Your task to perform on an android device: choose inbox layout in the gmail app Image 0: 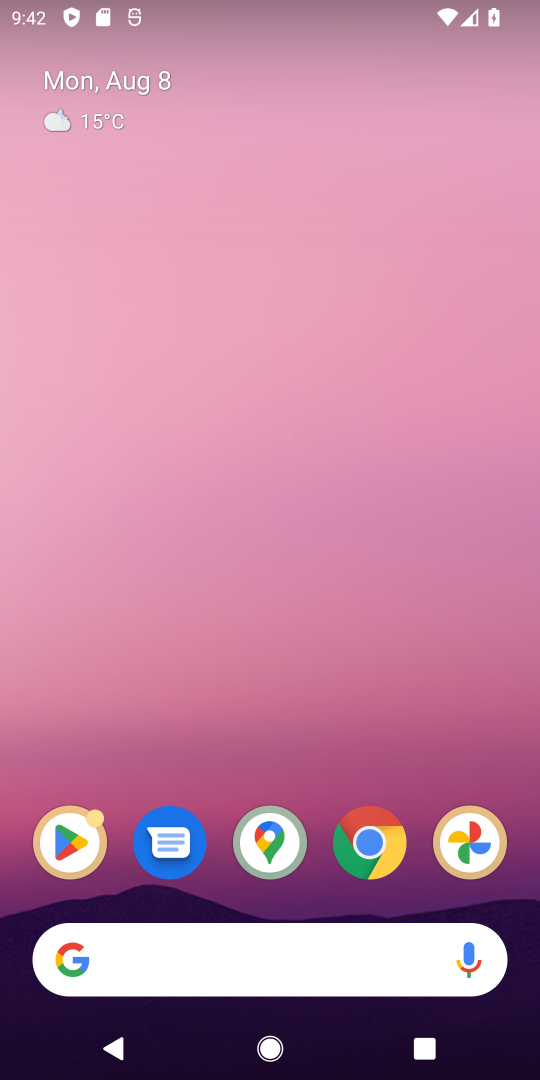
Step 0: drag from (321, 800) to (292, 235)
Your task to perform on an android device: choose inbox layout in the gmail app Image 1: 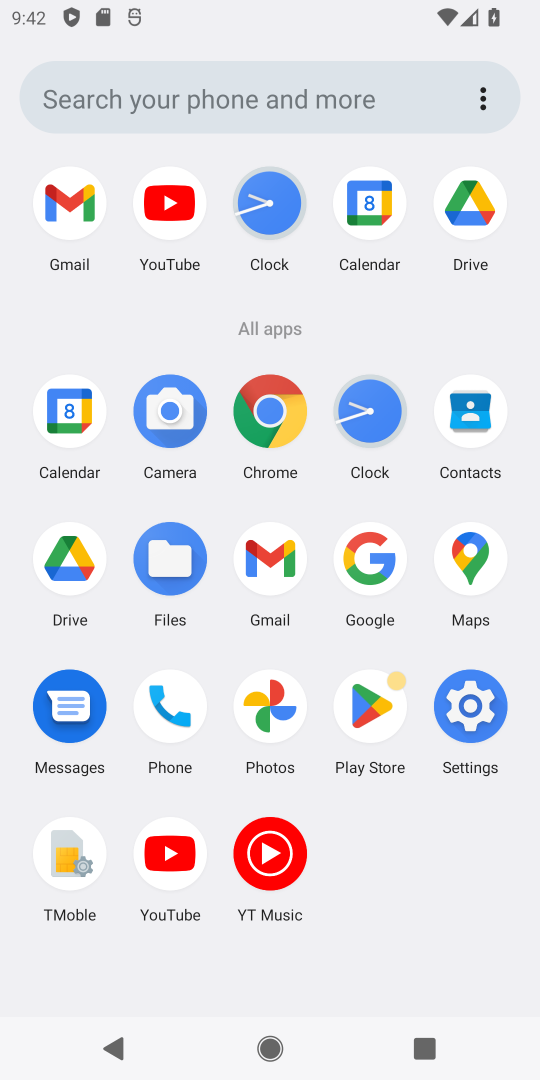
Step 1: click (271, 555)
Your task to perform on an android device: choose inbox layout in the gmail app Image 2: 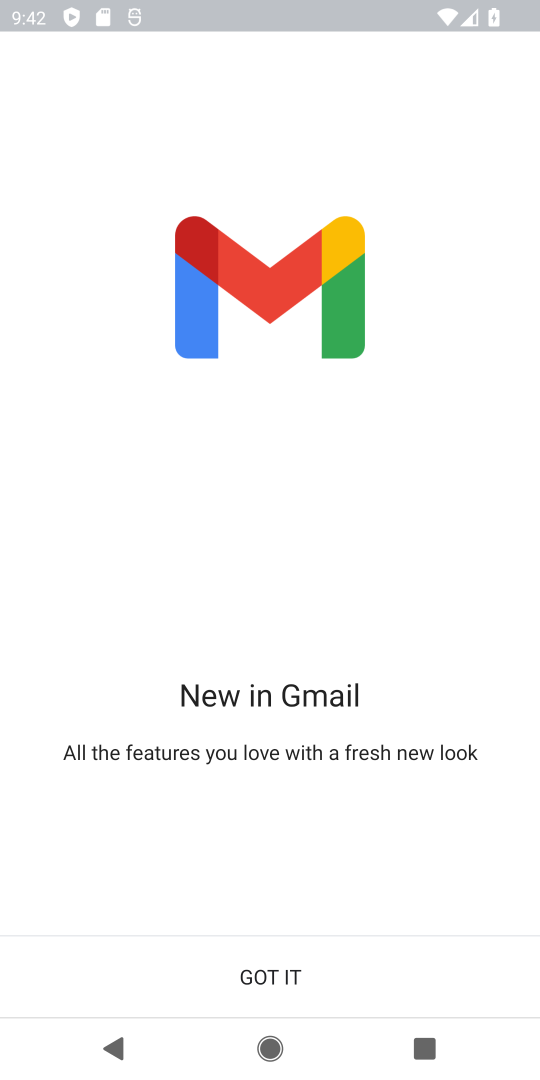
Step 2: click (242, 960)
Your task to perform on an android device: choose inbox layout in the gmail app Image 3: 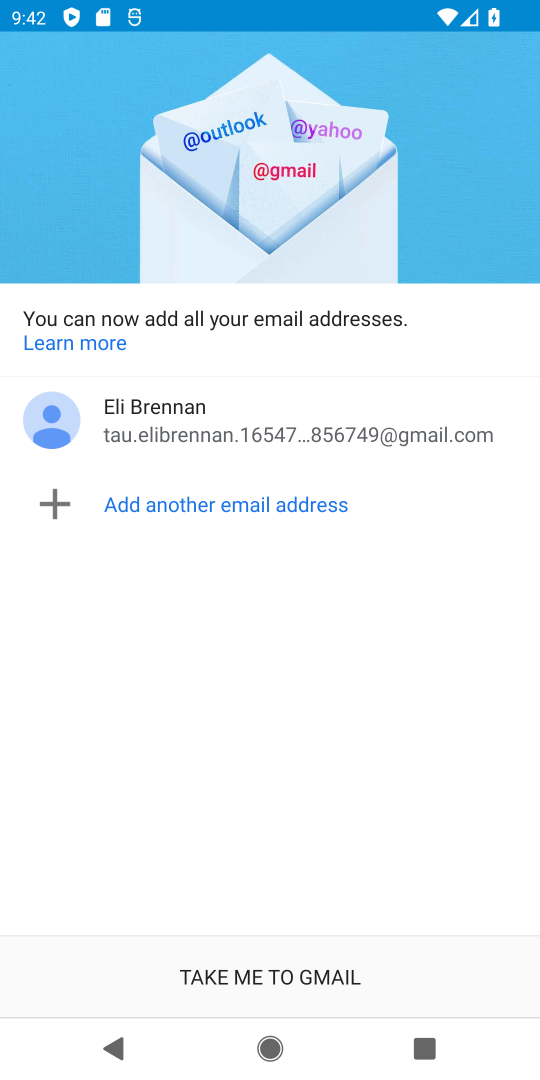
Step 3: click (393, 964)
Your task to perform on an android device: choose inbox layout in the gmail app Image 4: 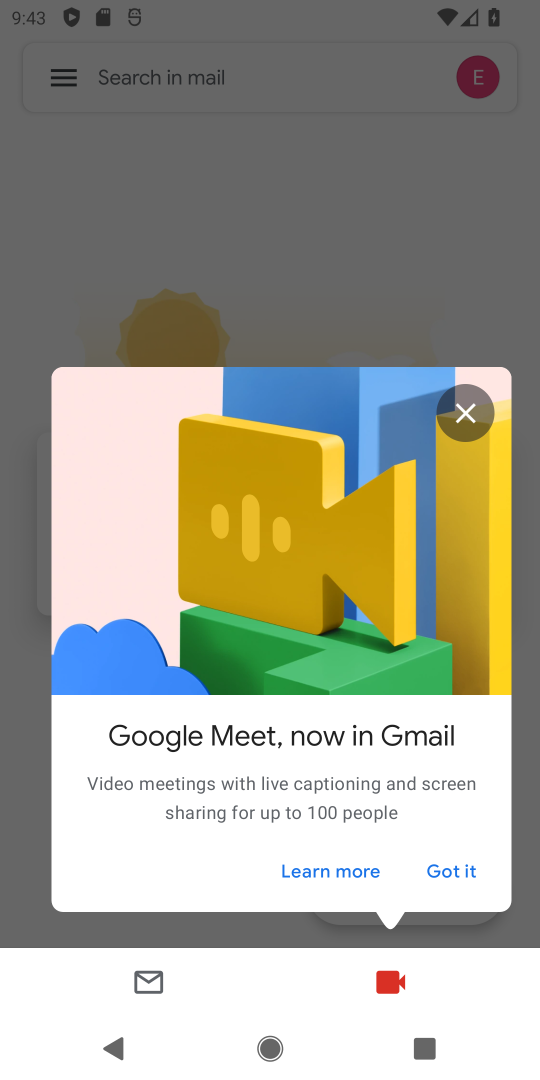
Step 4: click (479, 412)
Your task to perform on an android device: choose inbox layout in the gmail app Image 5: 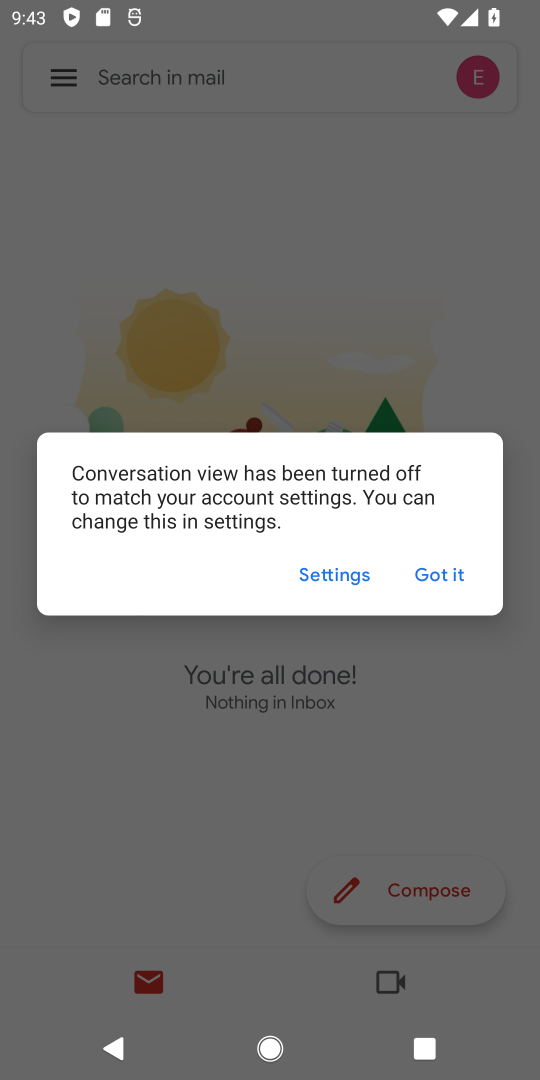
Step 5: click (427, 565)
Your task to perform on an android device: choose inbox layout in the gmail app Image 6: 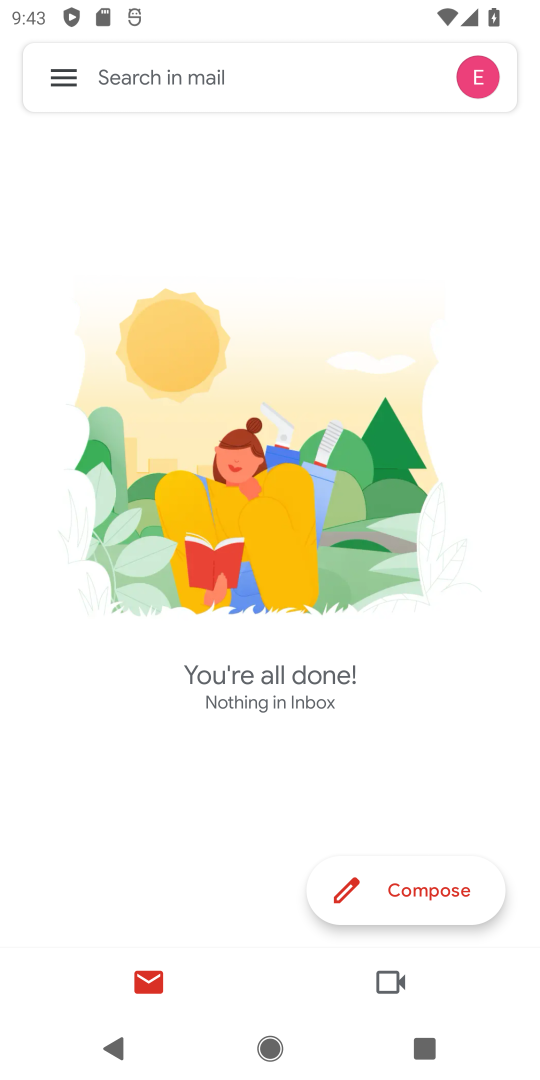
Step 6: click (71, 78)
Your task to perform on an android device: choose inbox layout in the gmail app Image 7: 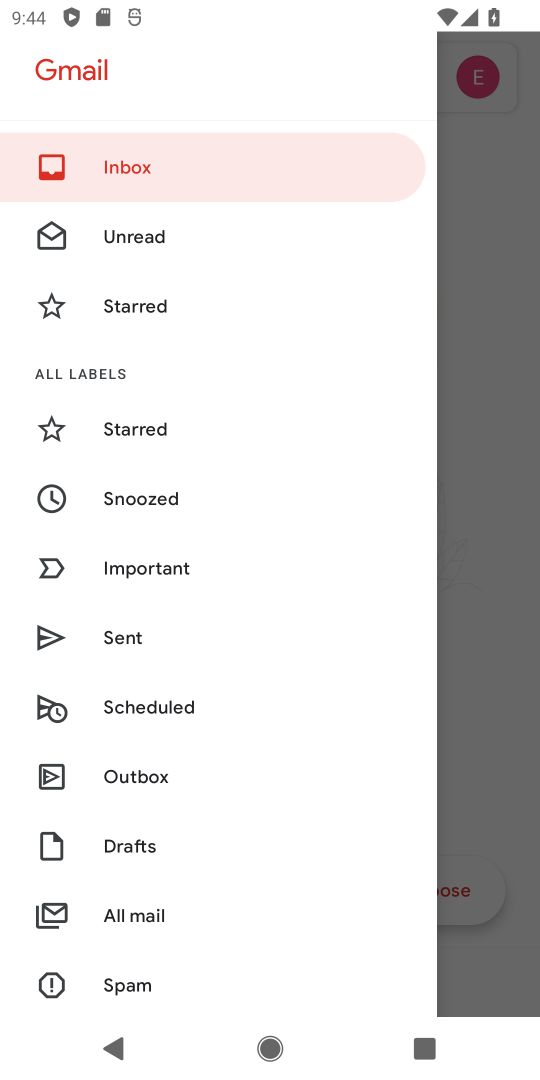
Step 7: drag from (384, 765) to (290, 366)
Your task to perform on an android device: choose inbox layout in the gmail app Image 8: 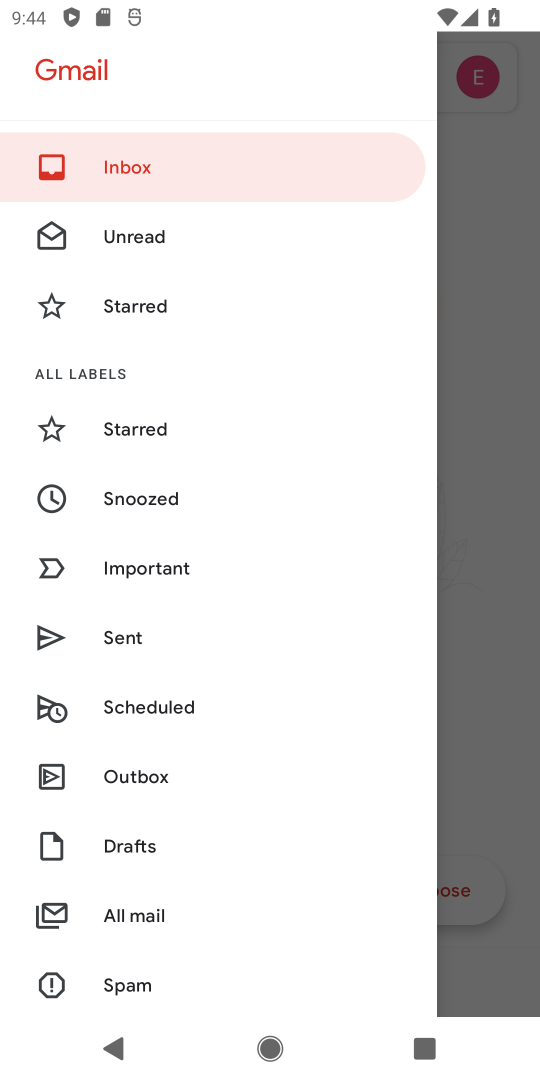
Step 8: drag from (231, 921) to (180, 416)
Your task to perform on an android device: choose inbox layout in the gmail app Image 9: 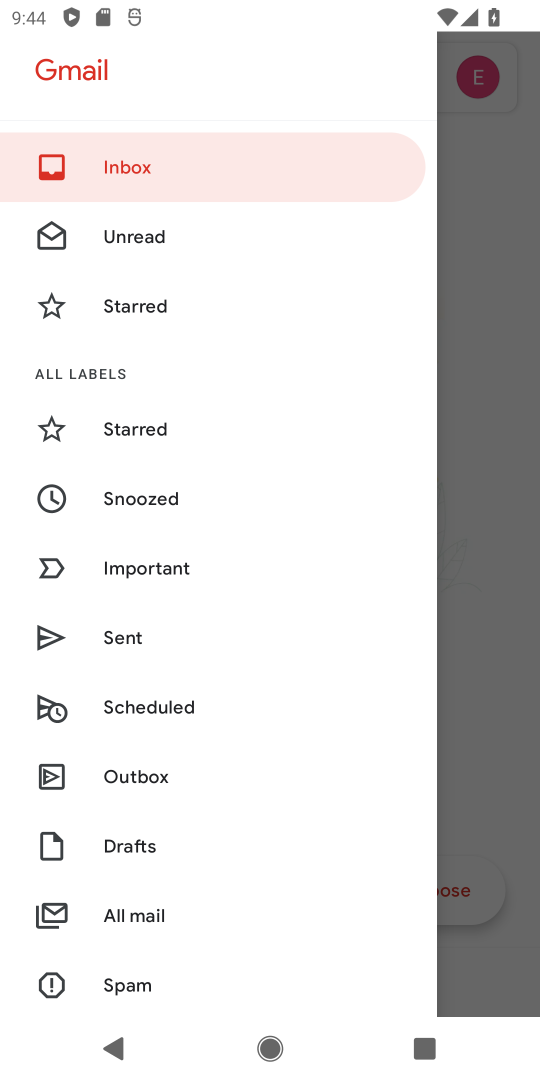
Step 9: drag from (256, 724) to (229, 297)
Your task to perform on an android device: choose inbox layout in the gmail app Image 10: 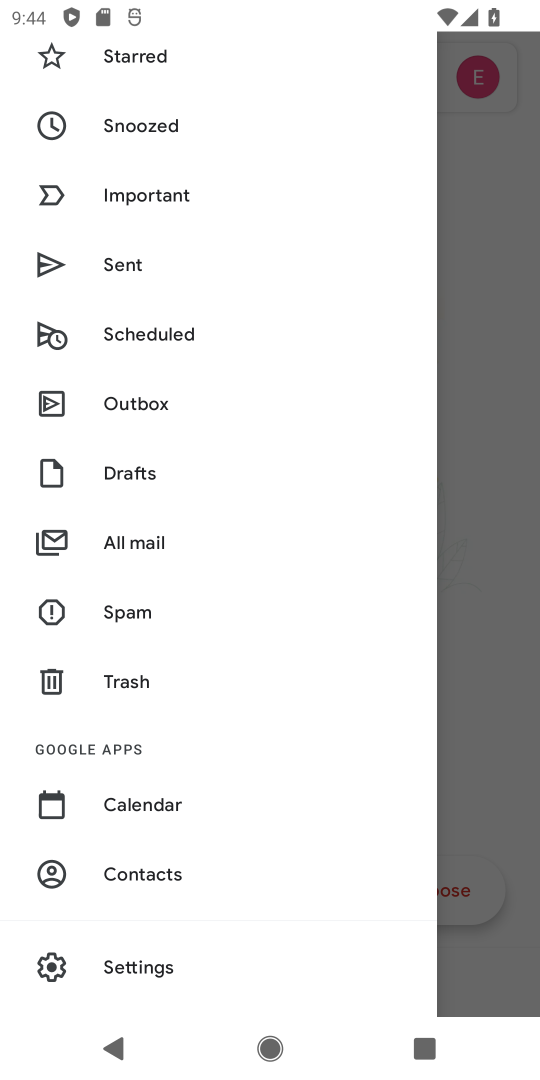
Step 10: click (165, 957)
Your task to perform on an android device: choose inbox layout in the gmail app Image 11: 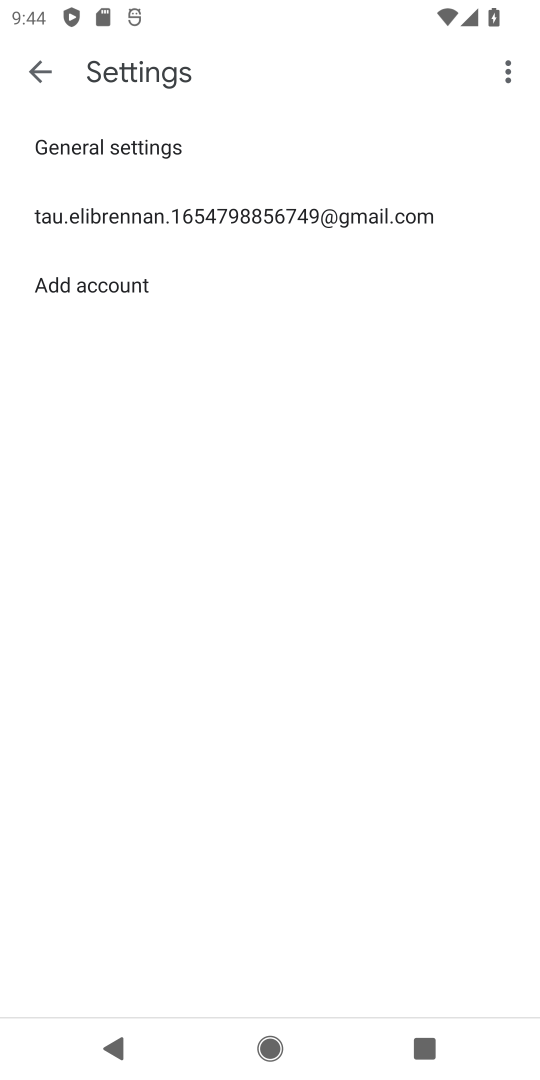
Step 11: click (272, 208)
Your task to perform on an android device: choose inbox layout in the gmail app Image 12: 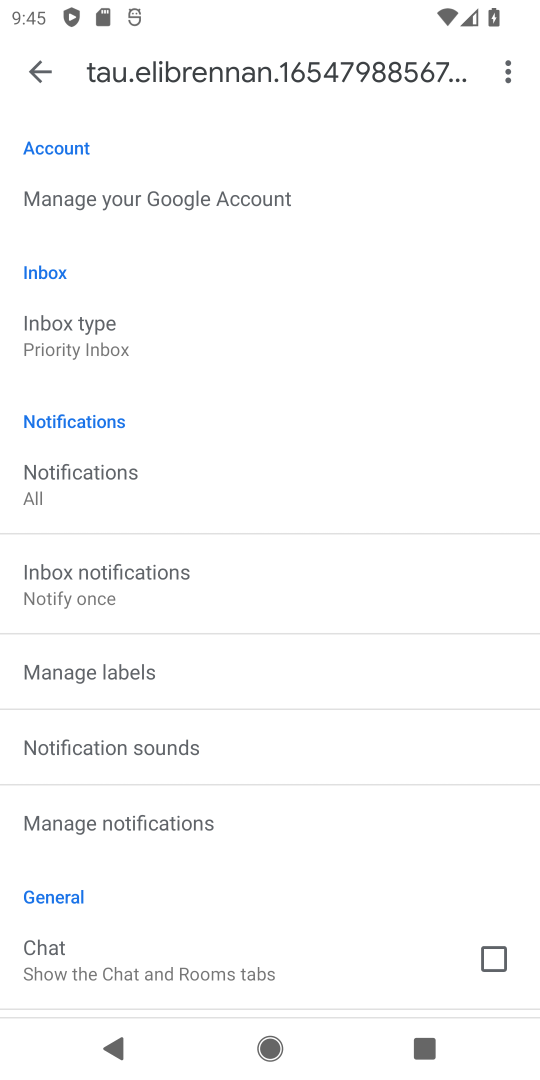
Step 12: drag from (391, 823) to (349, 471)
Your task to perform on an android device: choose inbox layout in the gmail app Image 13: 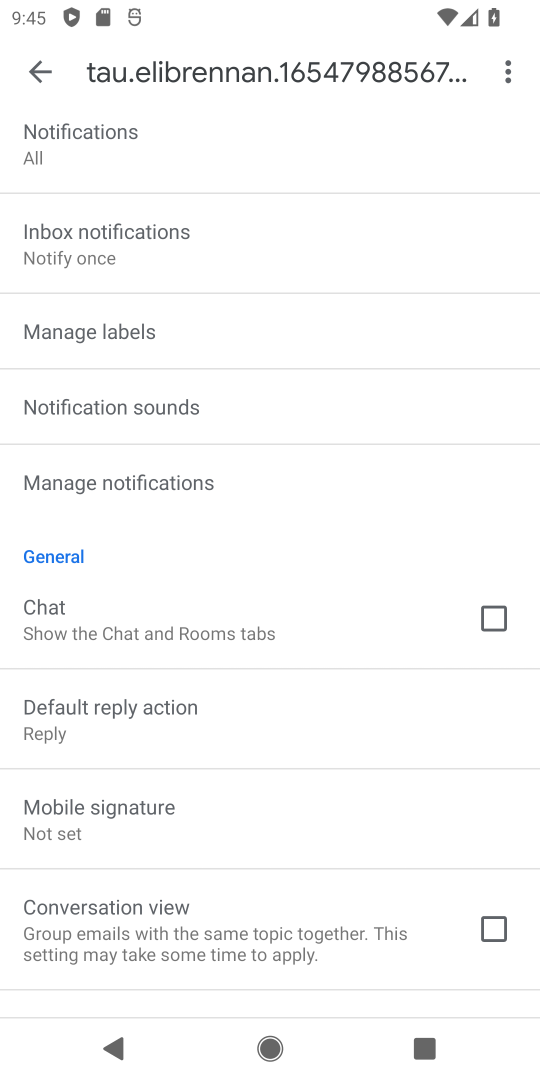
Step 13: drag from (350, 894) to (167, 1038)
Your task to perform on an android device: choose inbox layout in the gmail app Image 14: 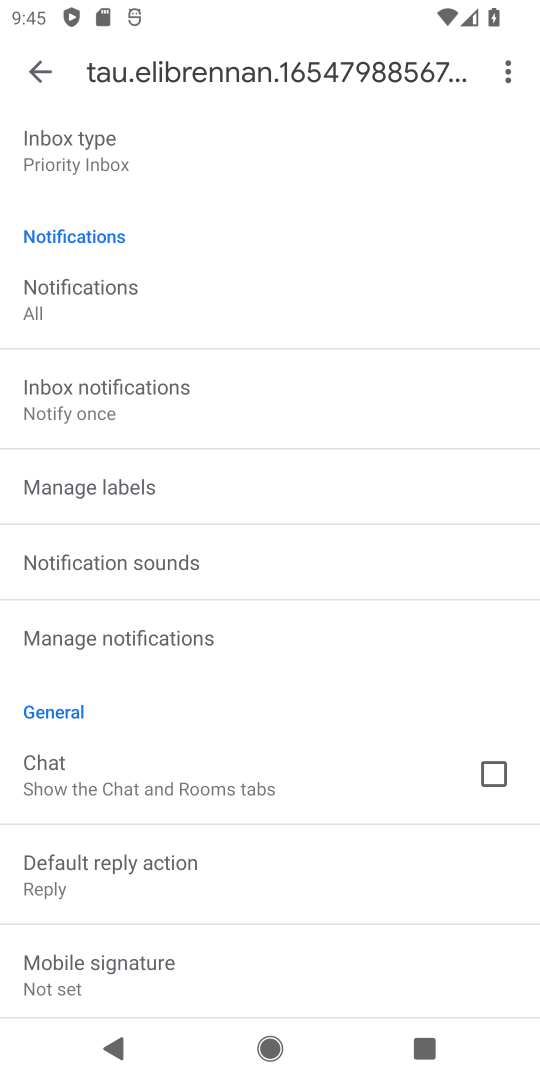
Step 14: drag from (150, 179) to (194, 594)
Your task to perform on an android device: choose inbox layout in the gmail app Image 15: 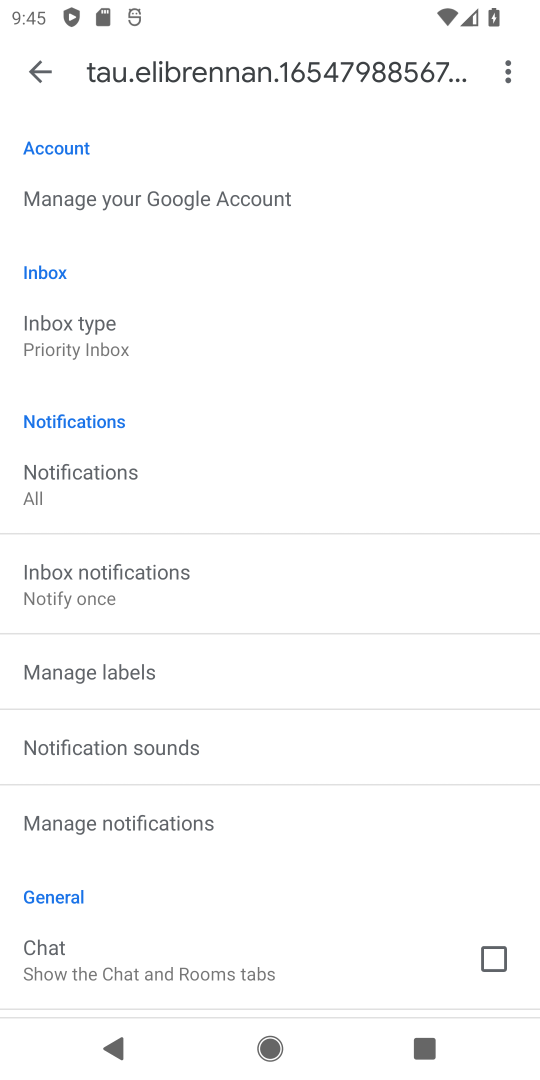
Step 15: click (83, 343)
Your task to perform on an android device: choose inbox layout in the gmail app Image 16: 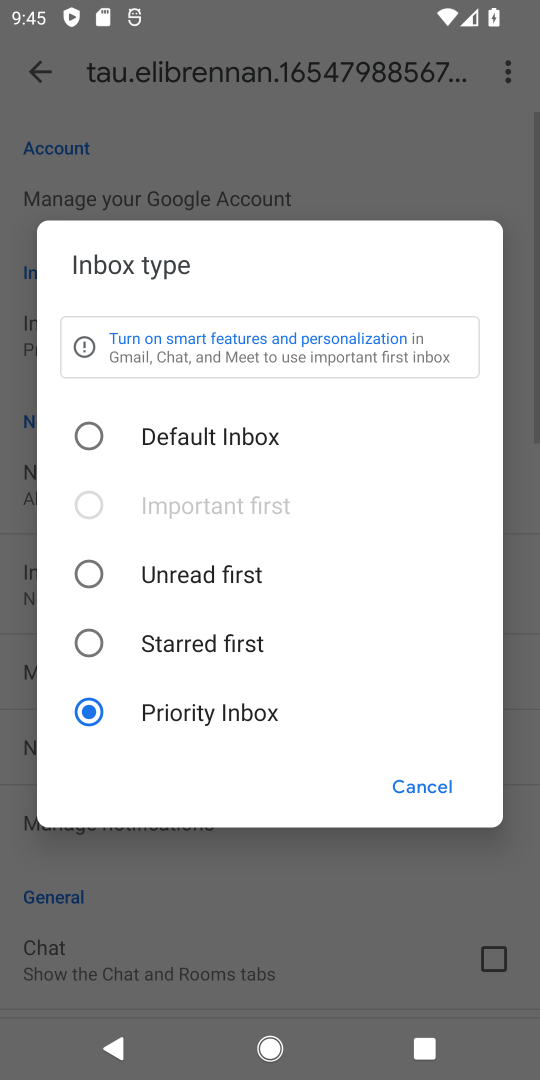
Step 16: click (197, 439)
Your task to perform on an android device: choose inbox layout in the gmail app Image 17: 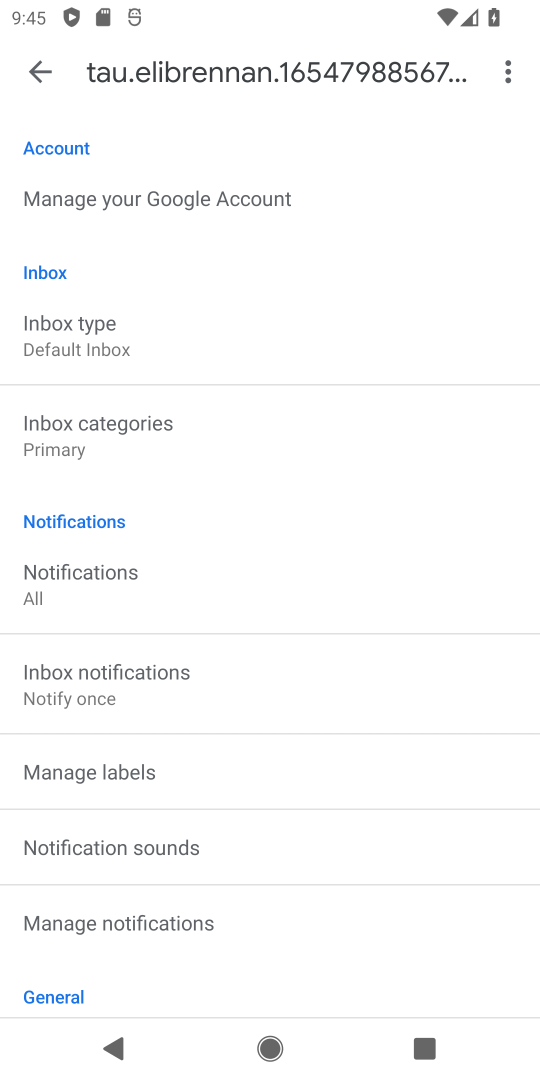
Step 17: task complete